Your task to perform on an android device: read, delete, or share a saved page in the chrome app Image 0: 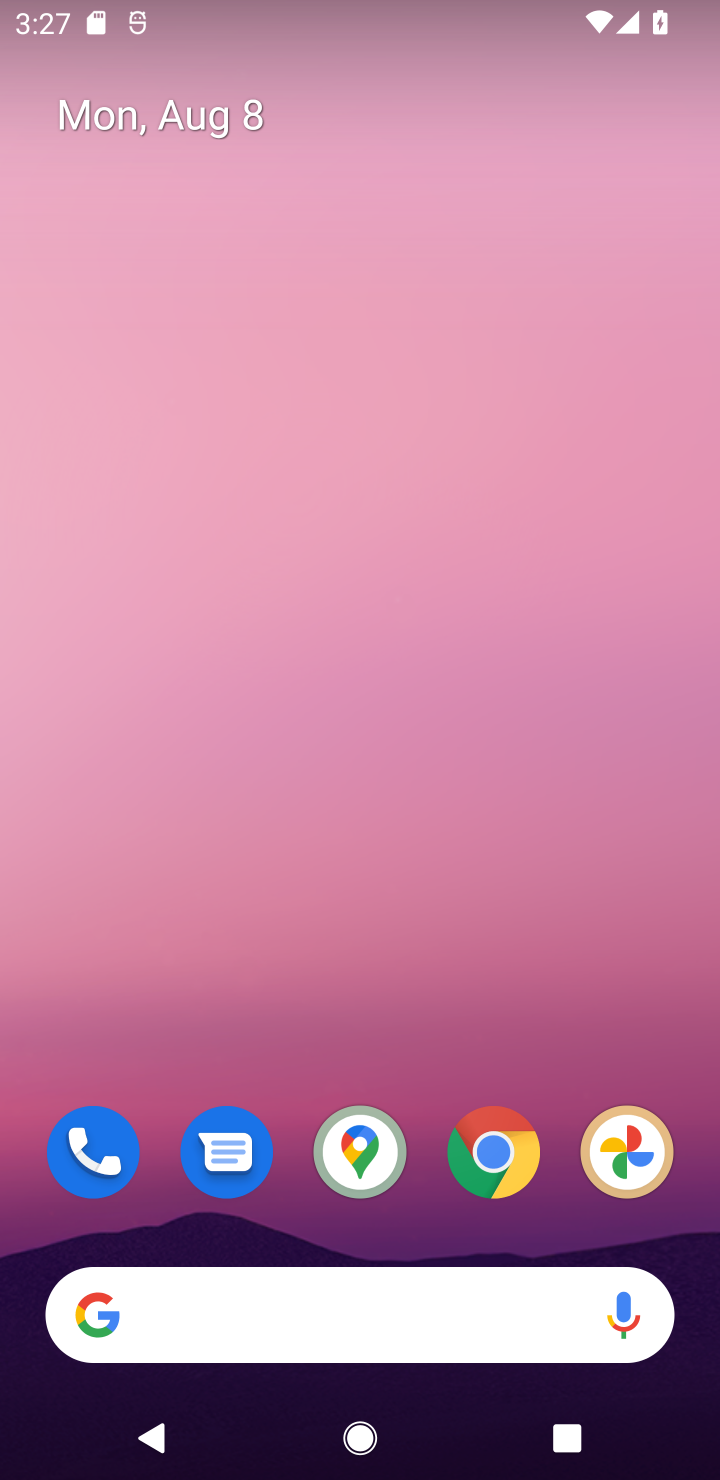
Step 0: click (510, 1135)
Your task to perform on an android device: read, delete, or share a saved page in the chrome app Image 1: 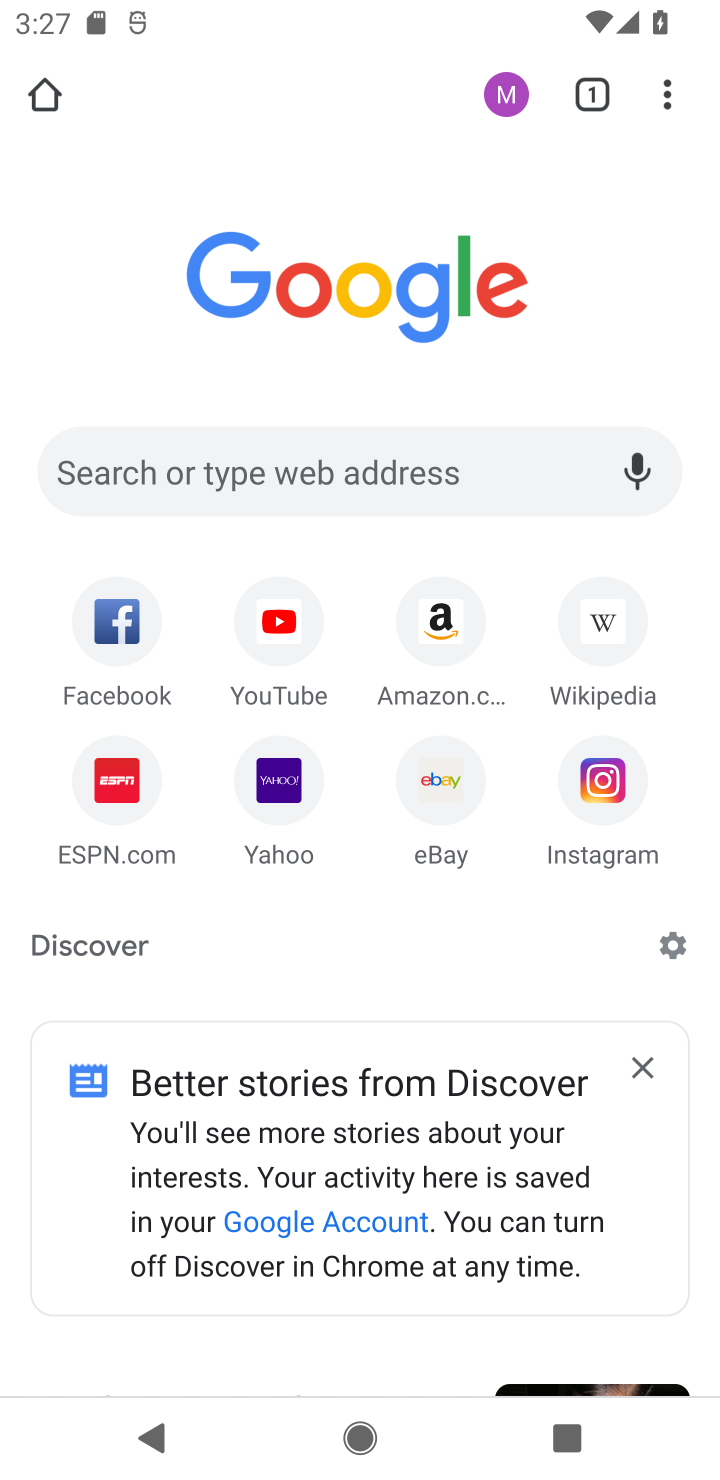
Step 1: task complete